Your task to perform on an android device: Open network settings Image 0: 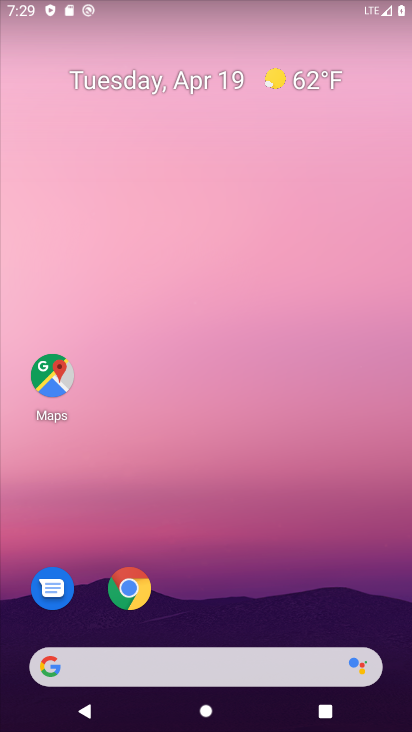
Step 0: drag from (221, 522) to (248, 31)
Your task to perform on an android device: Open network settings Image 1: 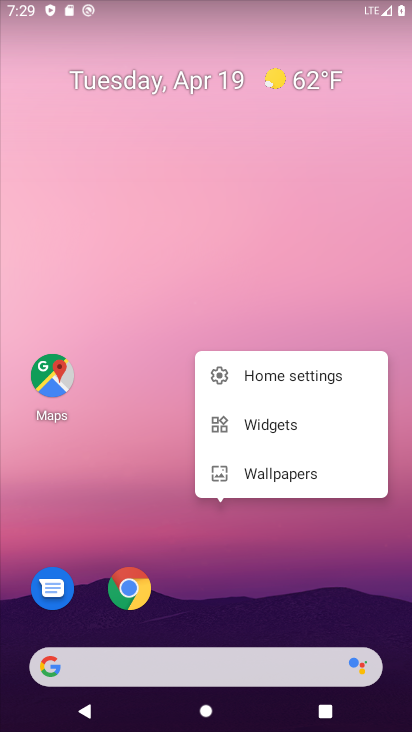
Step 1: click (146, 456)
Your task to perform on an android device: Open network settings Image 2: 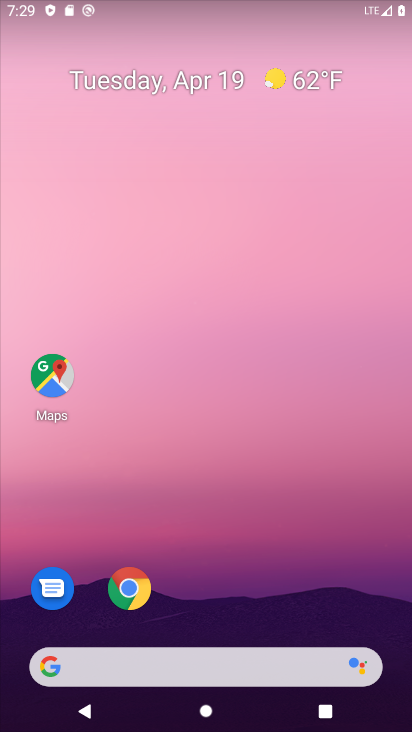
Step 2: drag from (202, 532) to (247, 68)
Your task to perform on an android device: Open network settings Image 3: 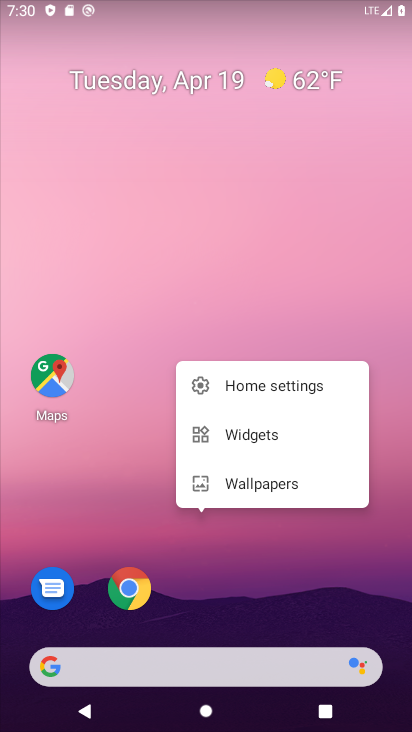
Step 3: click (159, 331)
Your task to perform on an android device: Open network settings Image 4: 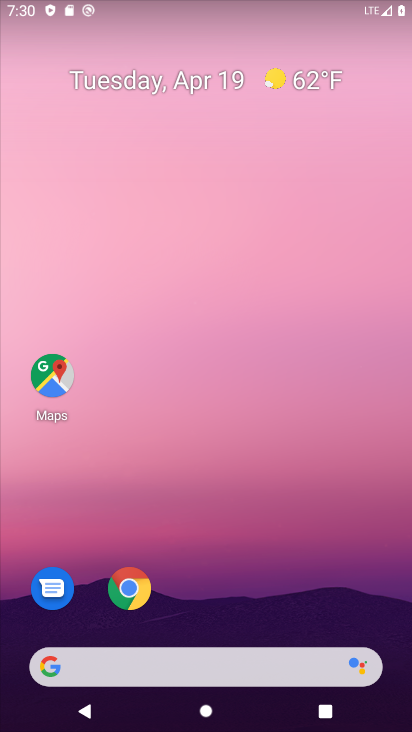
Step 4: drag from (211, 533) to (299, 1)
Your task to perform on an android device: Open network settings Image 5: 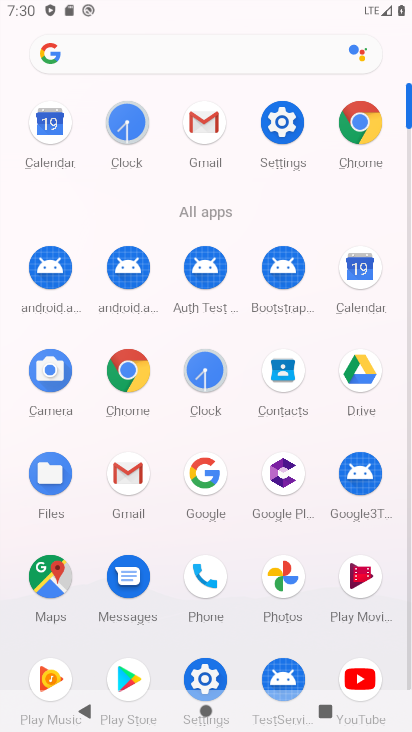
Step 5: click (287, 111)
Your task to perform on an android device: Open network settings Image 6: 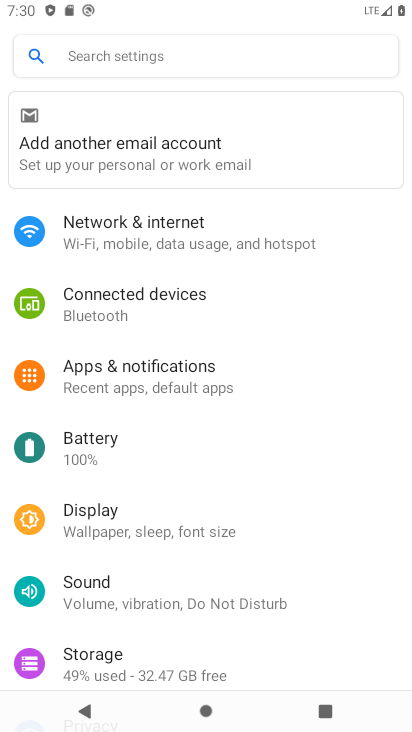
Step 6: click (110, 222)
Your task to perform on an android device: Open network settings Image 7: 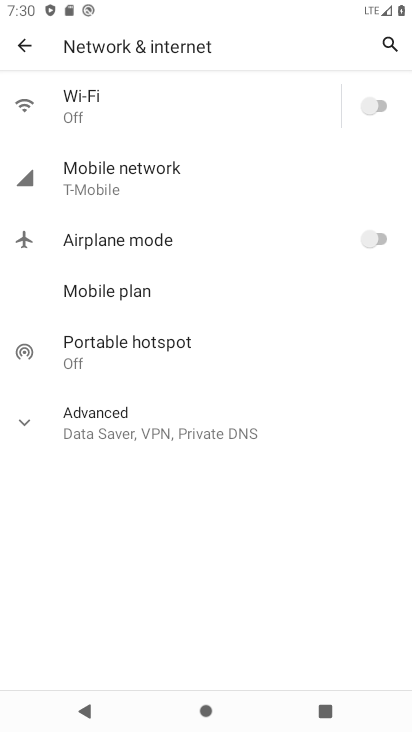
Step 7: click (132, 167)
Your task to perform on an android device: Open network settings Image 8: 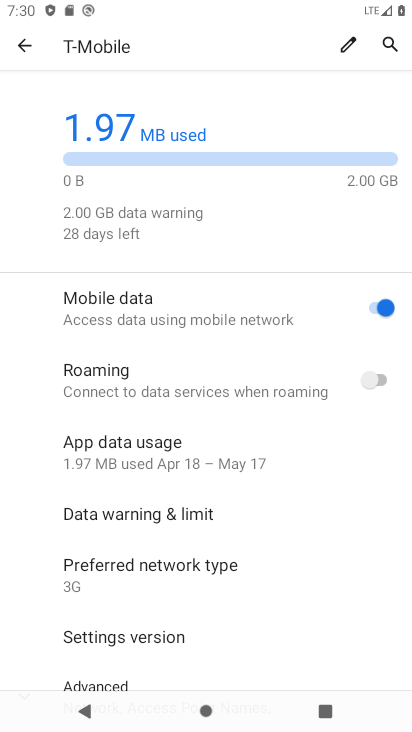
Step 8: task complete